Your task to perform on an android device: find which apps use the phone's location Image 0: 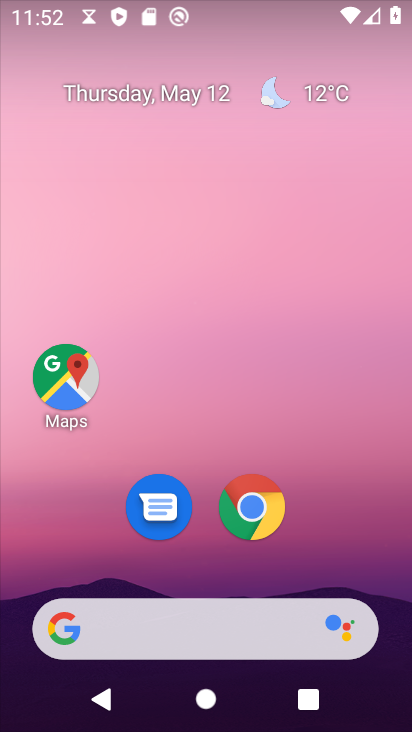
Step 0: drag from (347, 565) to (337, 95)
Your task to perform on an android device: find which apps use the phone's location Image 1: 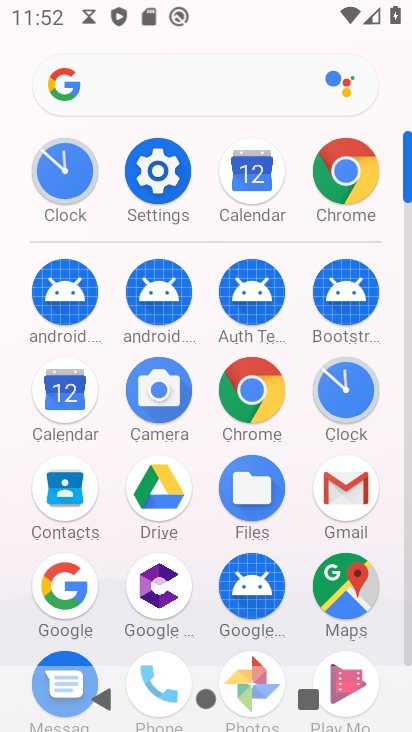
Step 1: click (152, 189)
Your task to perform on an android device: find which apps use the phone's location Image 2: 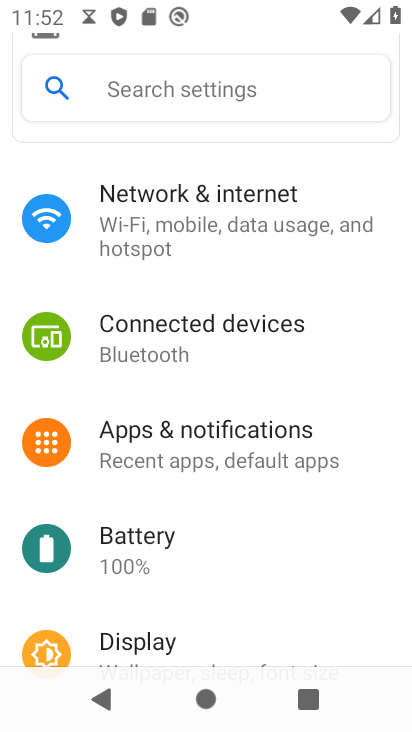
Step 2: drag from (229, 625) to (264, 204)
Your task to perform on an android device: find which apps use the phone's location Image 3: 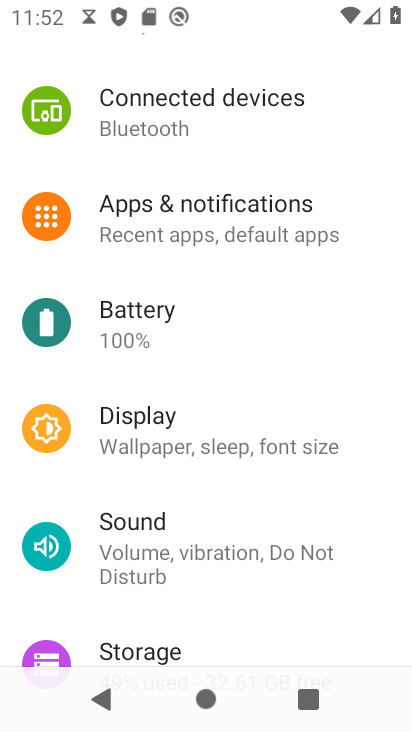
Step 3: drag from (253, 616) to (257, 213)
Your task to perform on an android device: find which apps use the phone's location Image 4: 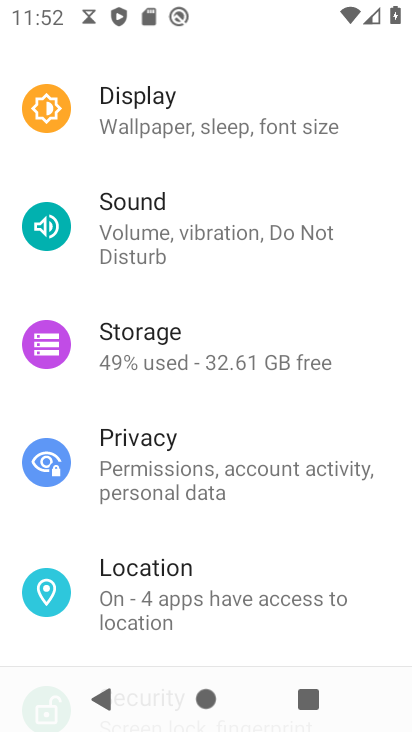
Step 4: click (195, 595)
Your task to perform on an android device: find which apps use the phone's location Image 5: 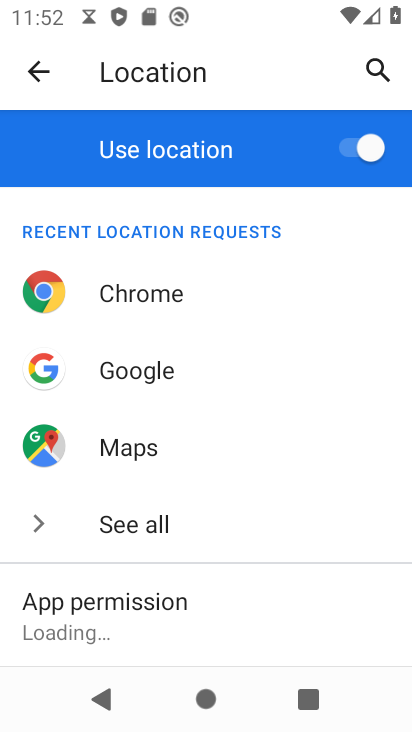
Step 5: click (183, 285)
Your task to perform on an android device: find which apps use the phone's location Image 6: 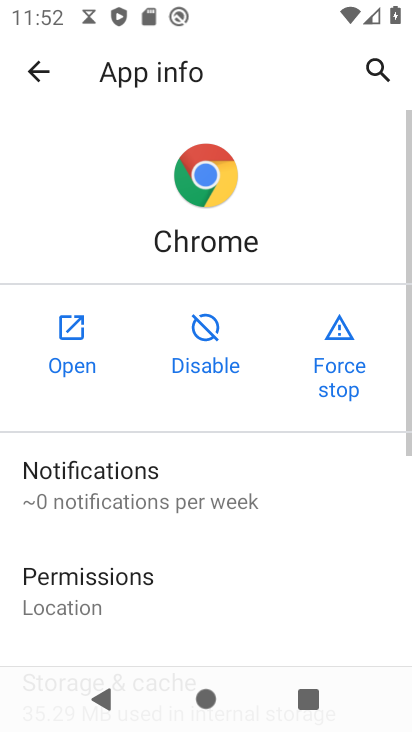
Step 6: drag from (162, 558) to (209, 300)
Your task to perform on an android device: find which apps use the phone's location Image 7: 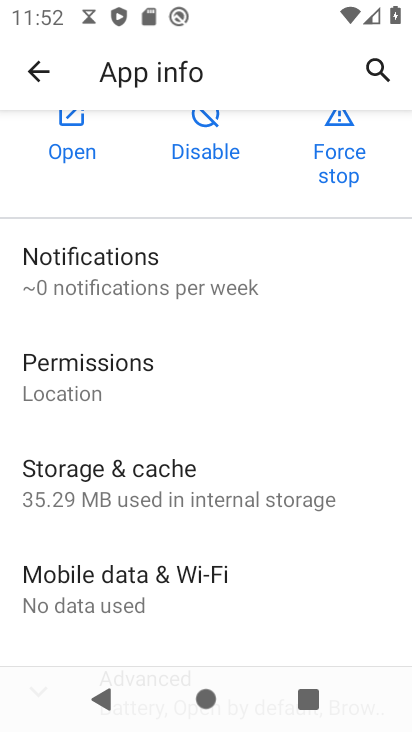
Step 7: click (144, 378)
Your task to perform on an android device: find which apps use the phone's location Image 8: 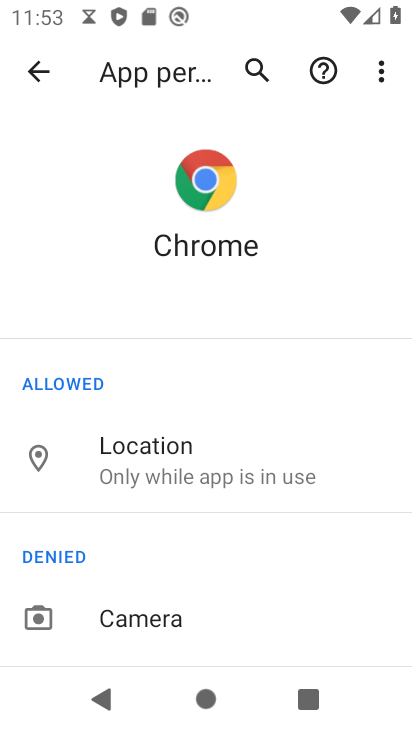
Step 8: task complete